Your task to perform on an android device: add a label to a message in the gmail app Image 0: 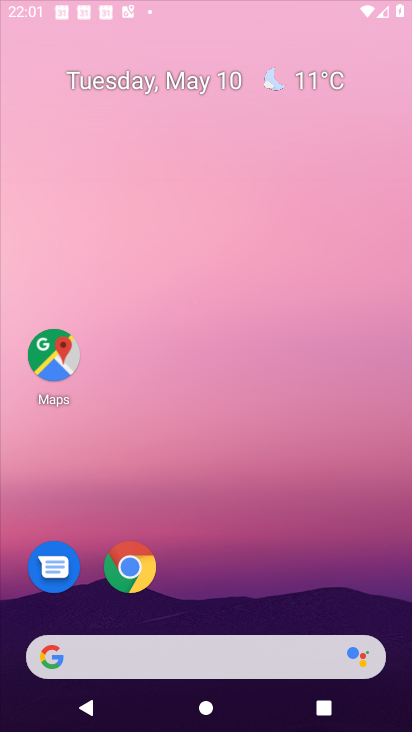
Step 0: drag from (205, 298) to (205, 248)
Your task to perform on an android device: add a label to a message in the gmail app Image 1: 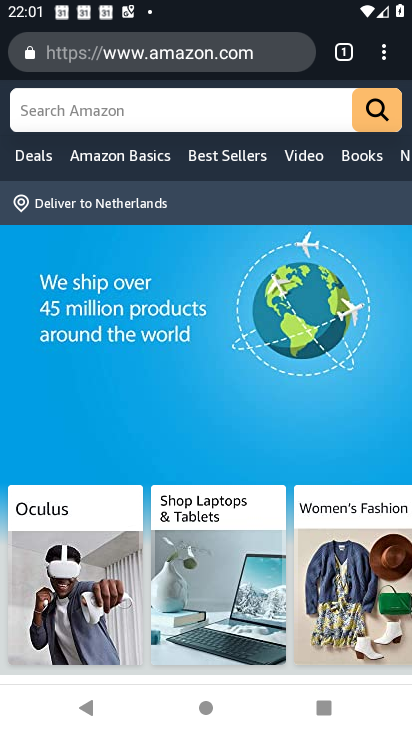
Step 1: press home button
Your task to perform on an android device: add a label to a message in the gmail app Image 2: 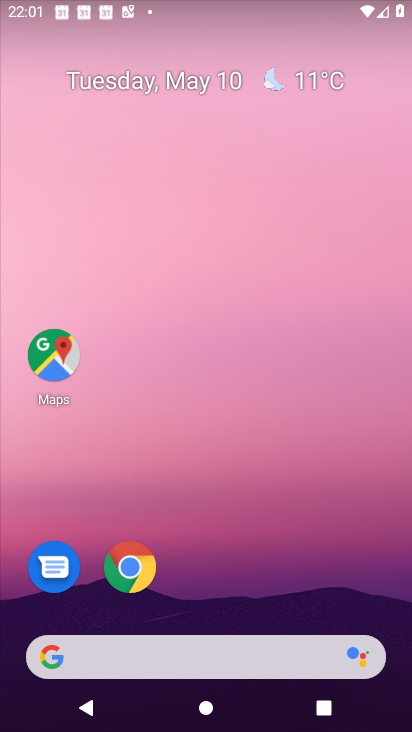
Step 2: drag from (103, 631) to (111, 206)
Your task to perform on an android device: add a label to a message in the gmail app Image 3: 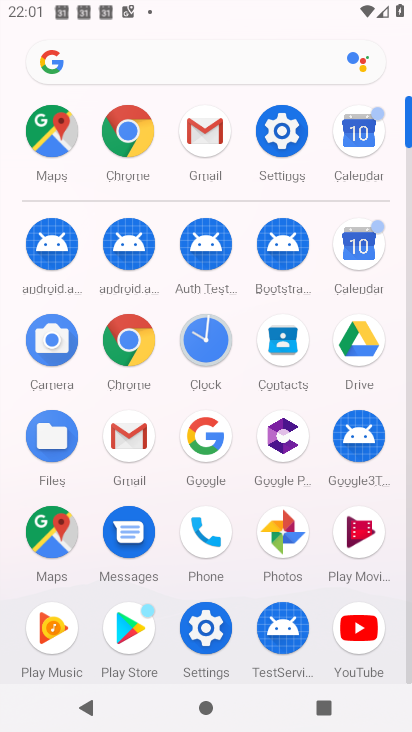
Step 3: click (246, 129)
Your task to perform on an android device: add a label to a message in the gmail app Image 4: 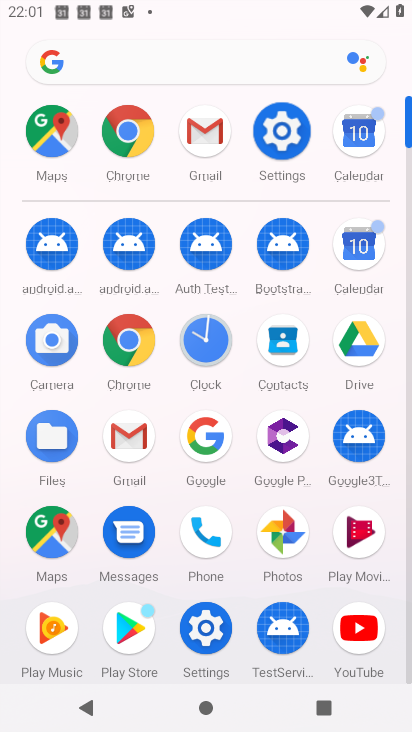
Step 4: click (216, 126)
Your task to perform on an android device: add a label to a message in the gmail app Image 5: 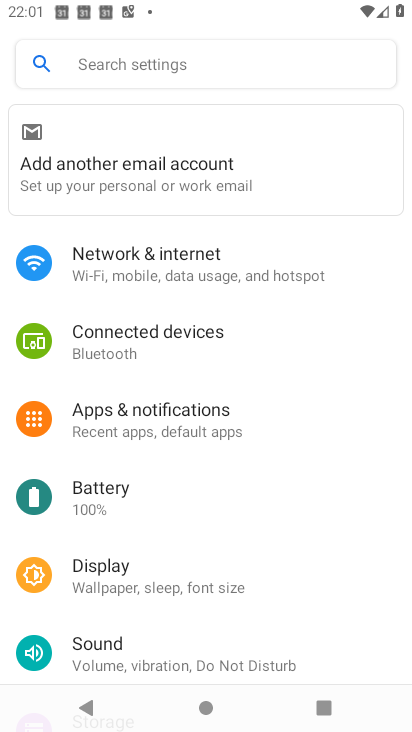
Step 5: press home button
Your task to perform on an android device: add a label to a message in the gmail app Image 6: 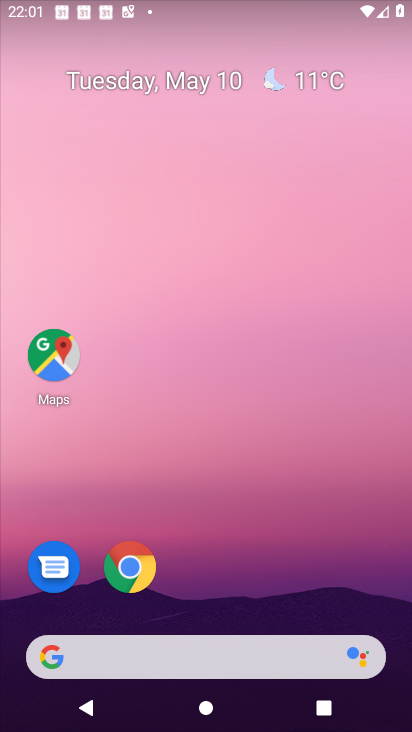
Step 6: drag from (99, 605) to (101, 303)
Your task to perform on an android device: add a label to a message in the gmail app Image 7: 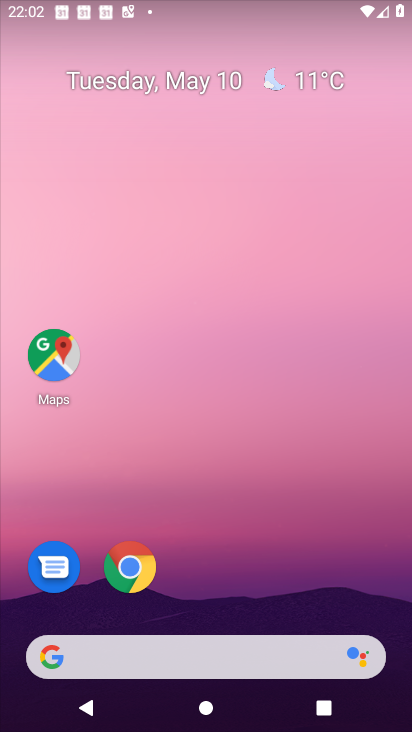
Step 7: drag from (133, 630) to (183, 281)
Your task to perform on an android device: add a label to a message in the gmail app Image 8: 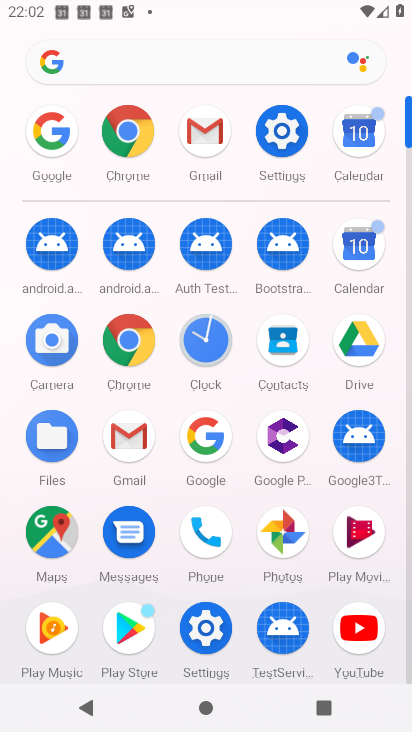
Step 8: click (184, 131)
Your task to perform on an android device: add a label to a message in the gmail app Image 9: 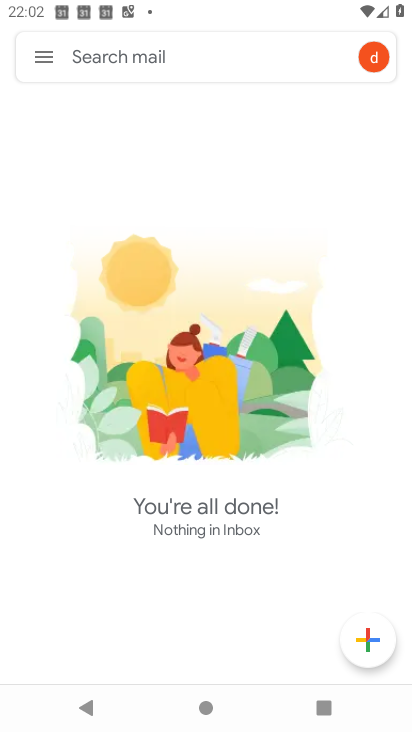
Step 9: click (45, 49)
Your task to perform on an android device: add a label to a message in the gmail app Image 10: 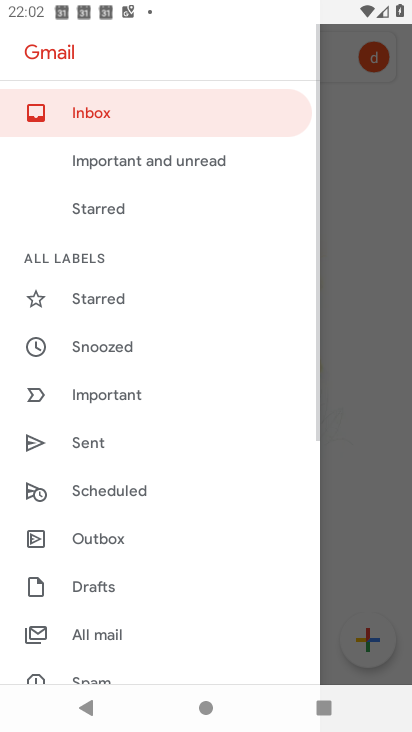
Step 10: click (70, 121)
Your task to perform on an android device: add a label to a message in the gmail app Image 11: 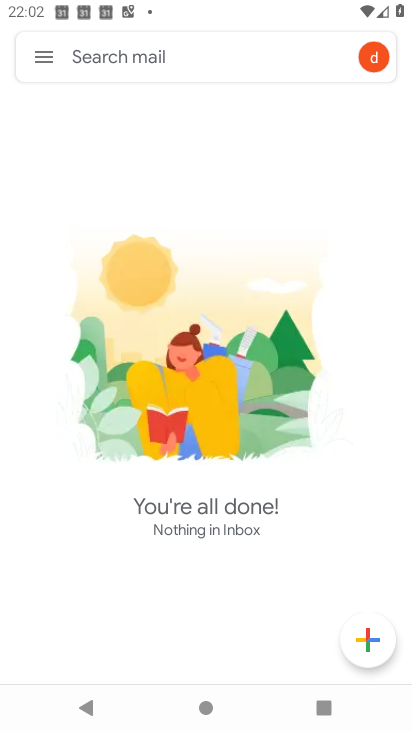
Step 11: task complete